Your task to perform on an android device: Open Youtube and go to "Your channel" Image 0: 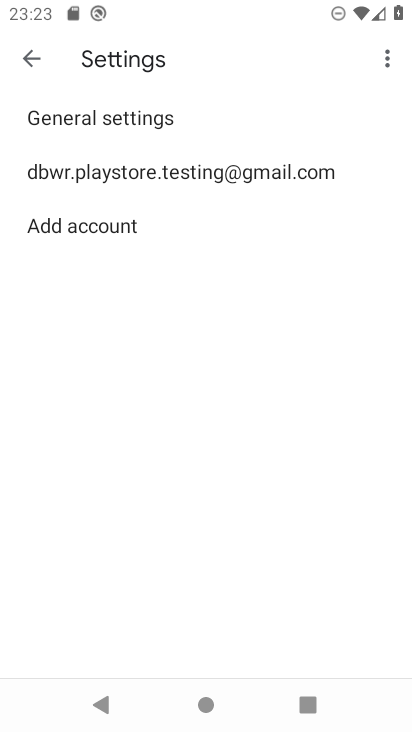
Step 0: press home button
Your task to perform on an android device: Open Youtube and go to "Your channel" Image 1: 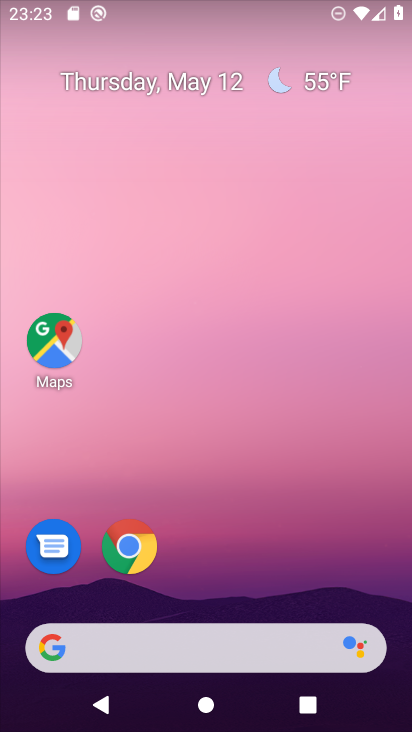
Step 1: drag from (152, 597) to (227, 204)
Your task to perform on an android device: Open Youtube and go to "Your channel" Image 2: 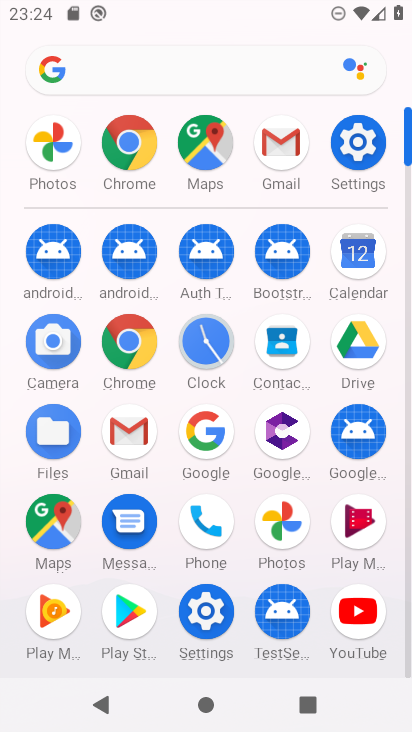
Step 2: click (359, 615)
Your task to perform on an android device: Open Youtube and go to "Your channel" Image 3: 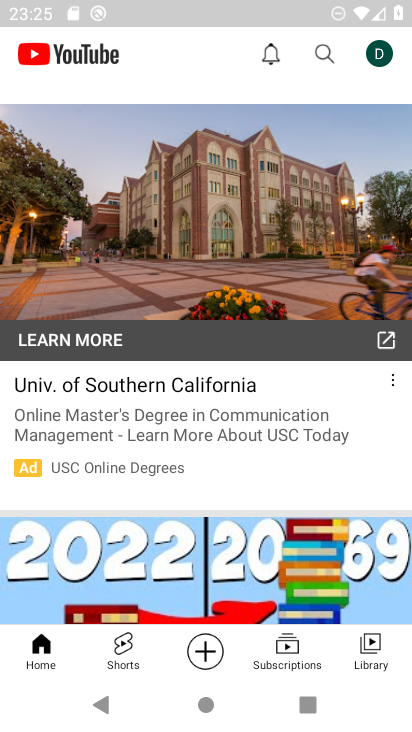
Step 3: click (379, 51)
Your task to perform on an android device: Open Youtube and go to "Your channel" Image 4: 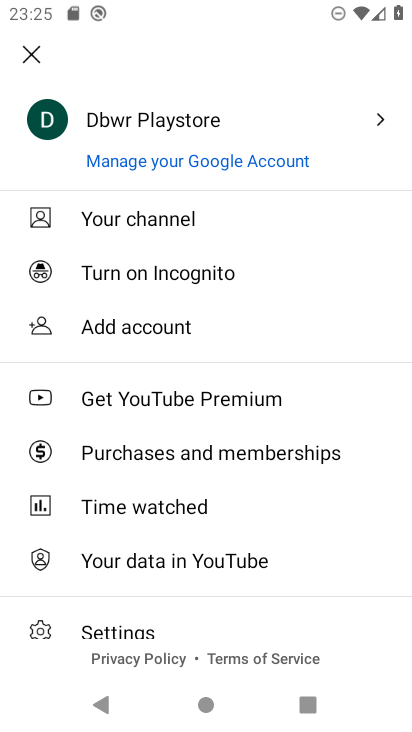
Step 4: click (139, 266)
Your task to perform on an android device: Open Youtube and go to "Your channel" Image 5: 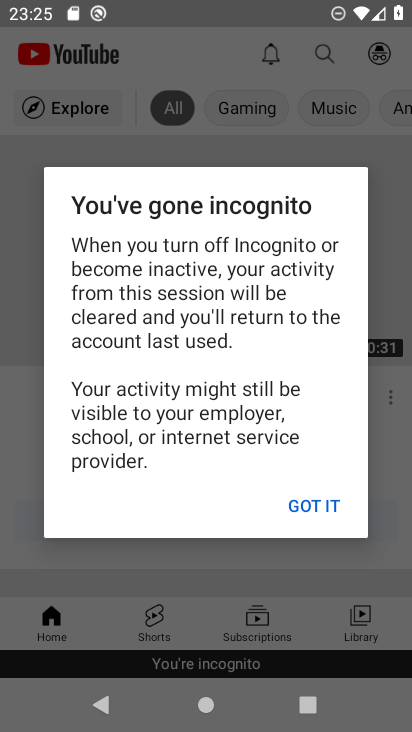
Step 5: task complete